Your task to perform on an android device: What is the news today? Image 0: 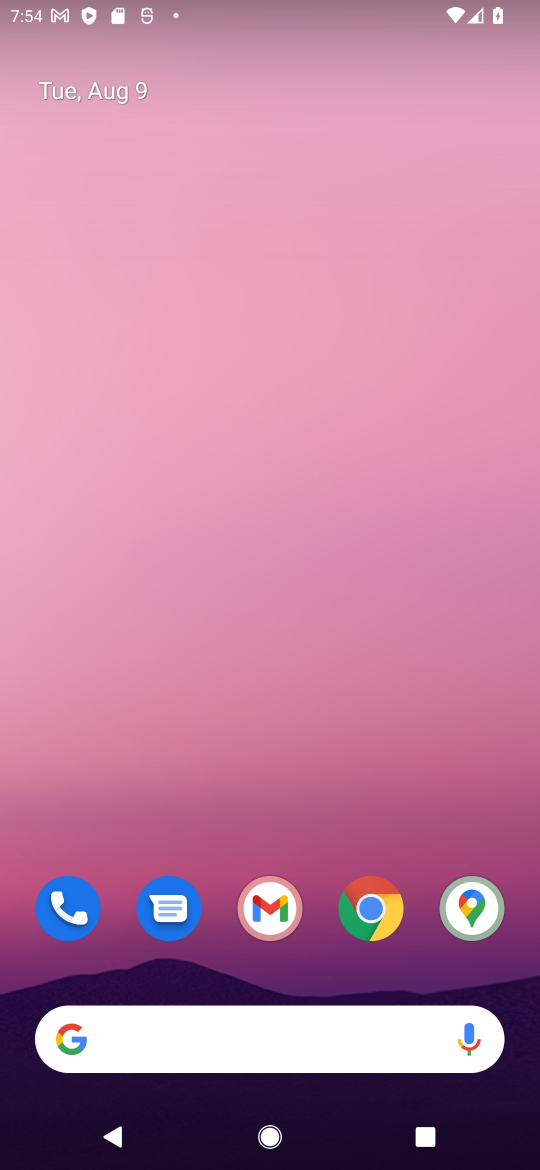
Step 0: drag from (2, 338) to (532, 300)
Your task to perform on an android device: What is the news today? Image 1: 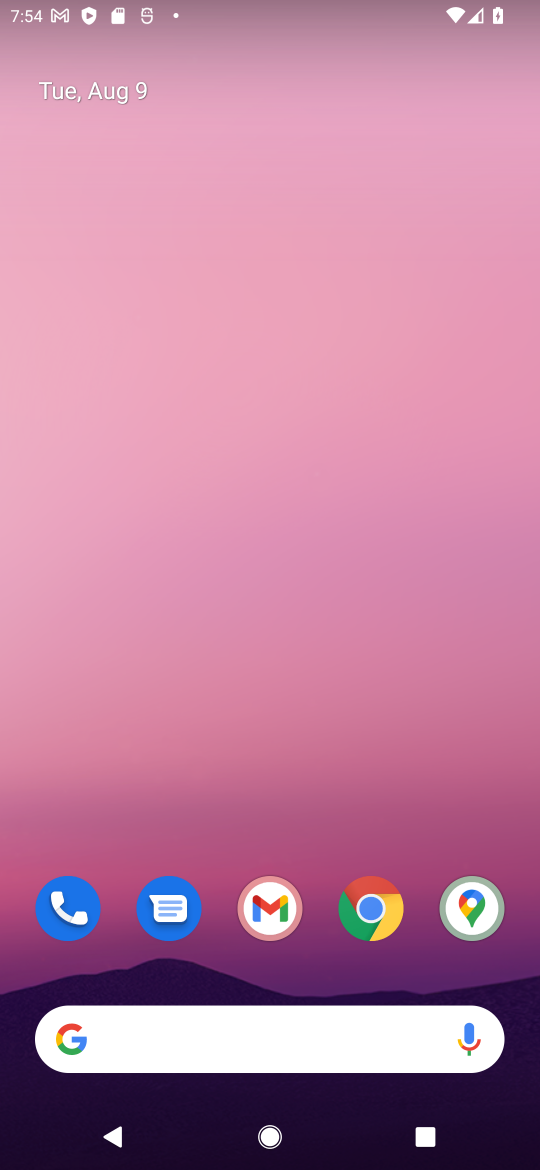
Step 1: task complete